Your task to perform on an android device: Open calendar and show me the first week of next month Image 0: 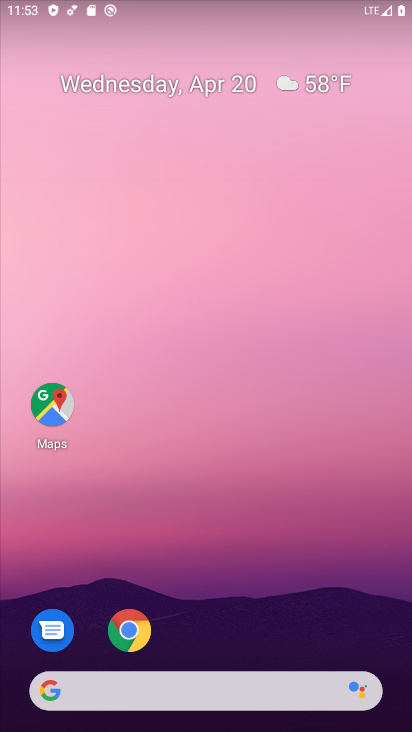
Step 0: drag from (162, 687) to (304, 211)
Your task to perform on an android device: Open calendar and show me the first week of next month Image 1: 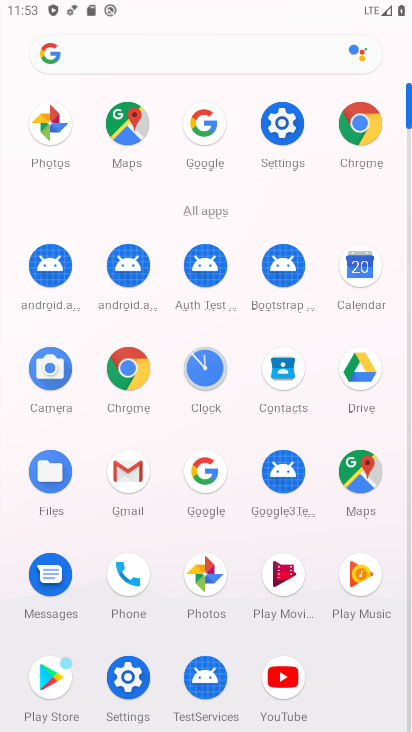
Step 1: click (363, 277)
Your task to perform on an android device: Open calendar and show me the first week of next month Image 2: 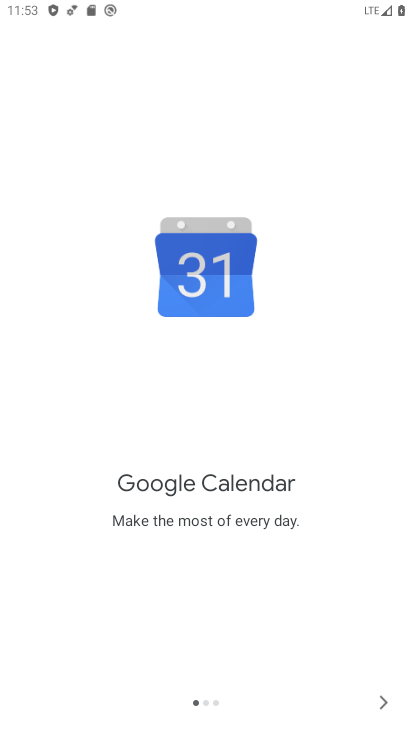
Step 2: click (387, 700)
Your task to perform on an android device: Open calendar and show me the first week of next month Image 3: 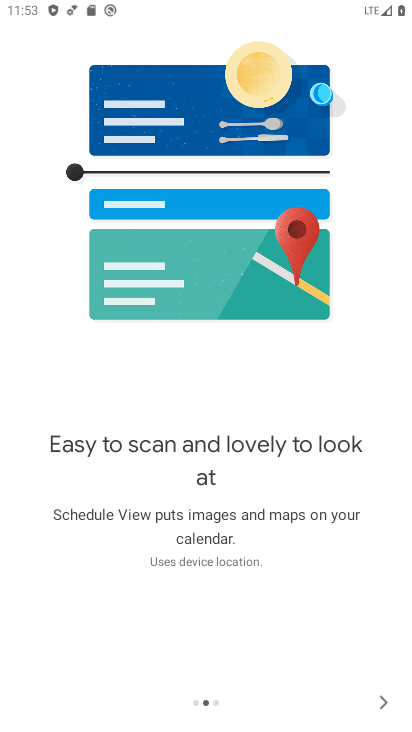
Step 3: click (371, 711)
Your task to perform on an android device: Open calendar and show me the first week of next month Image 4: 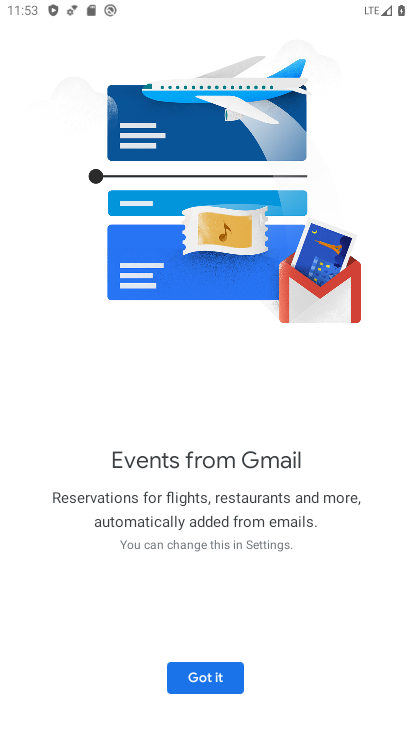
Step 4: click (186, 683)
Your task to perform on an android device: Open calendar and show me the first week of next month Image 5: 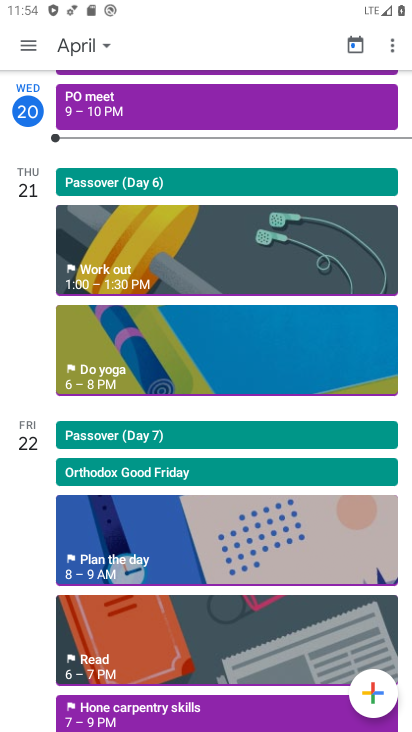
Step 5: click (78, 49)
Your task to perform on an android device: Open calendar and show me the first week of next month Image 6: 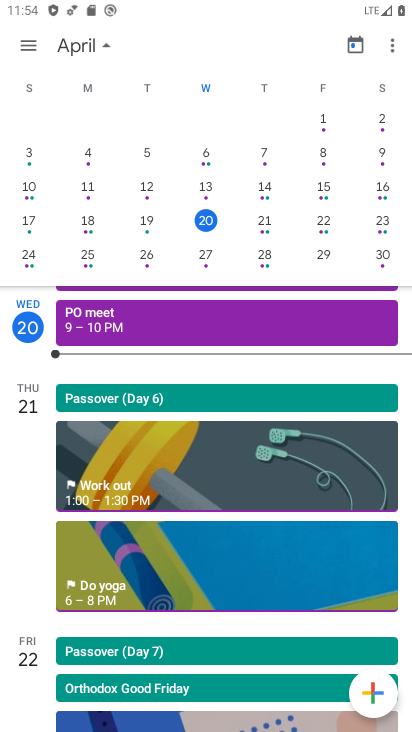
Step 6: drag from (315, 222) to (1, 190)
Your task to perform on an android device: Open calendar and show me the first week of next month Image 7: 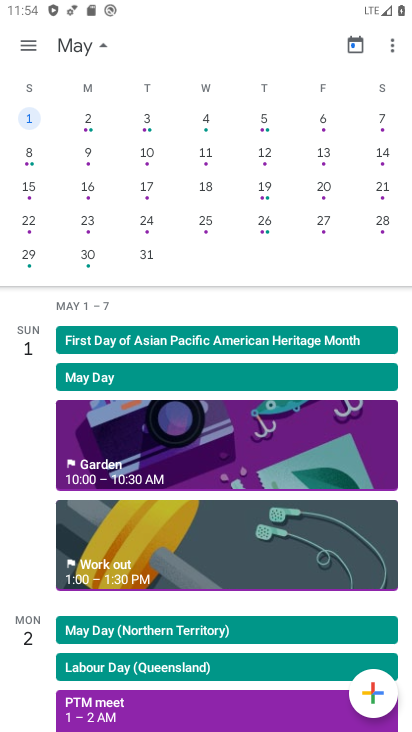
Step 7: click (26, 47)
Your task to perform on an android device: Open calendar and show me the first week of next month Image 8: 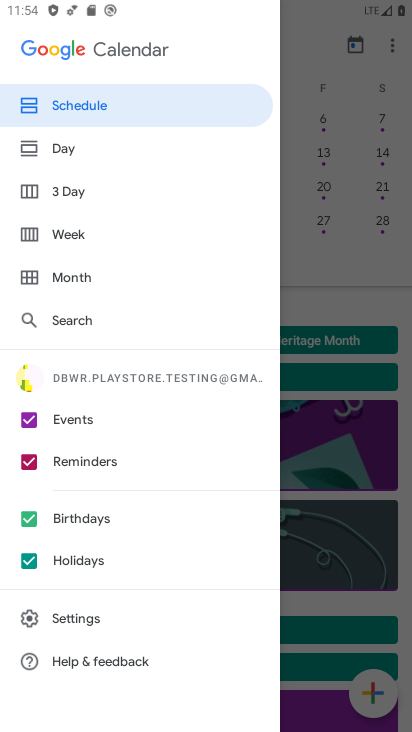
Step 8: click (68, 235)
Your task to perform on an android device: Open calendar and show me the first week of next month Image 9: 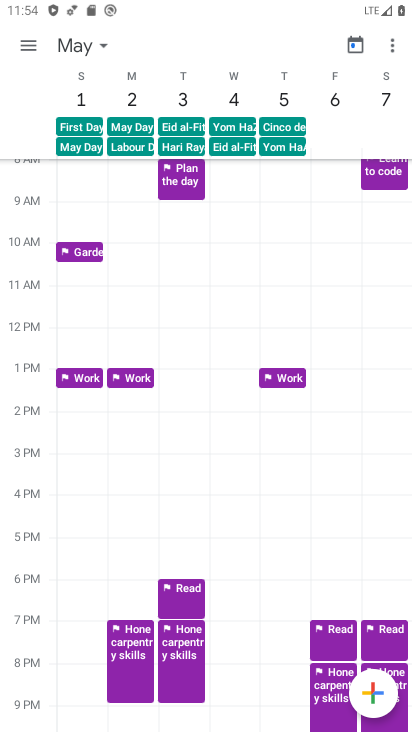
Step 9: task complete